Your task to perform on an android device: Is it going to rain today? Image 0: 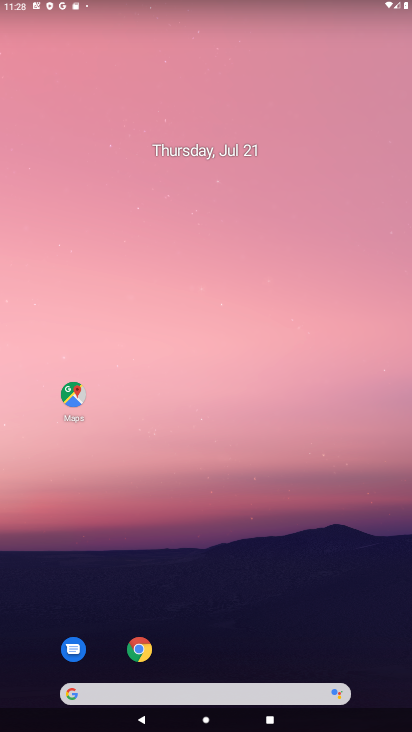
Step 0: drag from (229, 699) to (226, 342)
Your task to perform on an android device: Is it going to rain today? Image 1: 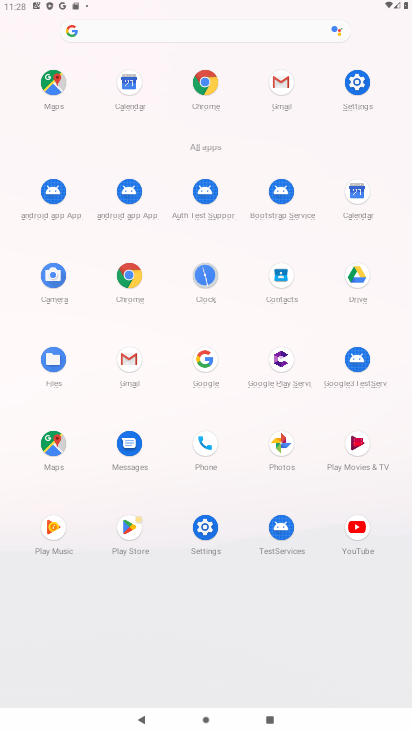
Step 1: click (205, 354)
Your task to perform on an android device: Is it going to rain today? Image 2: 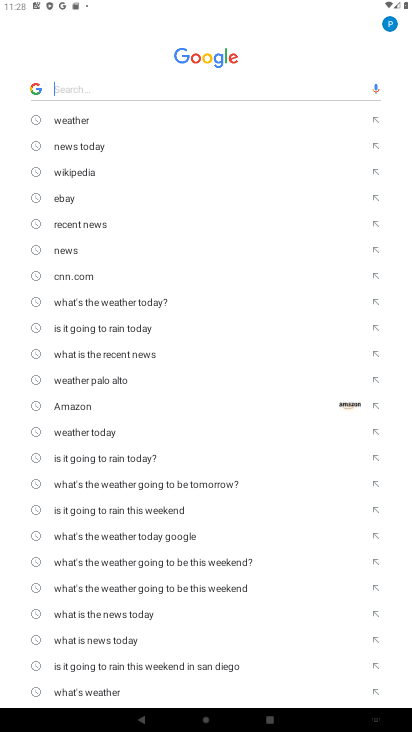
Step 2: click (78, 119)
Your task to perform on an android device: Is it going to rain today? Image 3: 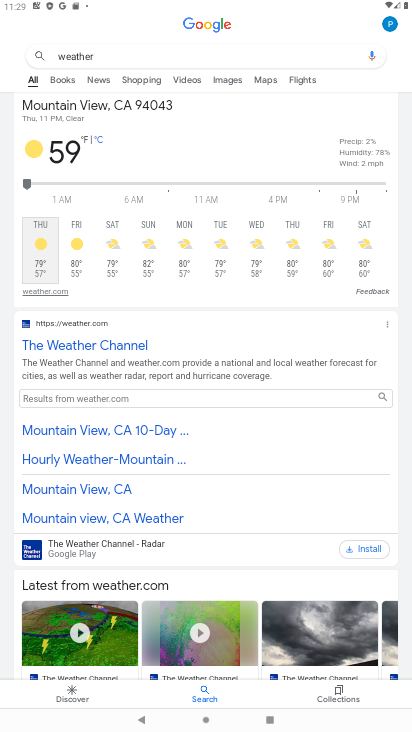
Step 3: task complete